Your task to perform on an android device: What's the weather today? Image 0: 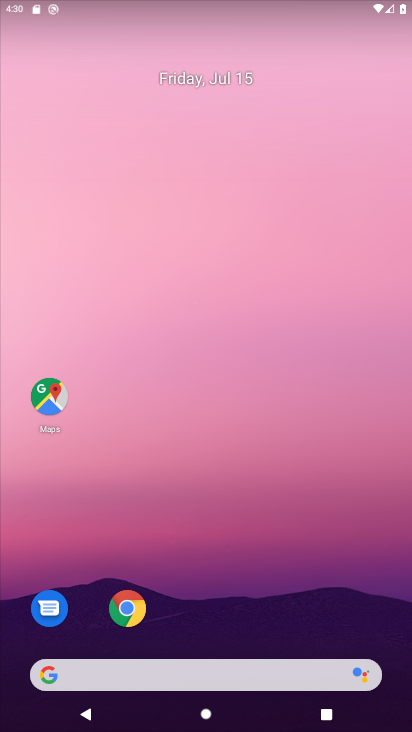
Step 0: click (198, 672)
Your task to perform on an android device: What's the weather today? Image 1: 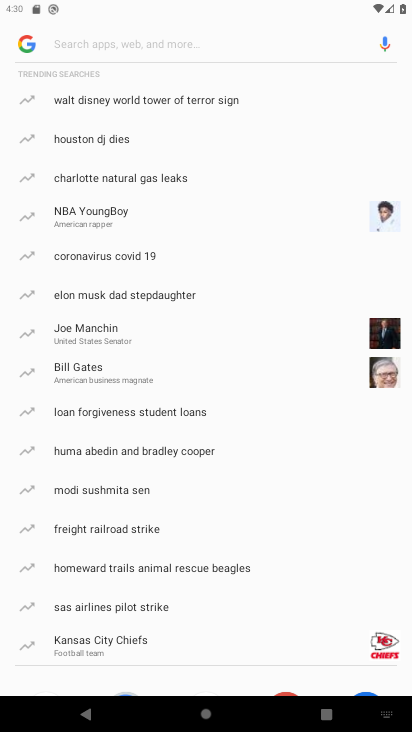
Step 1: type "weather"
Your task to perform on an android device: What's the weather today? Image 2: 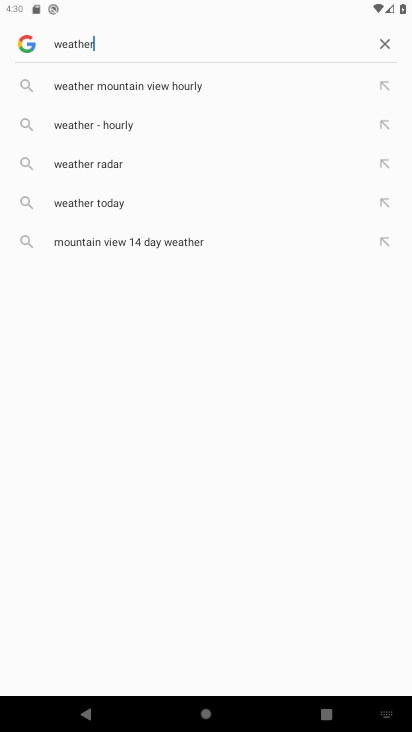
Step 2: click (114, 214)
Your task to perform on an android device: What's the weather today? Image 3: 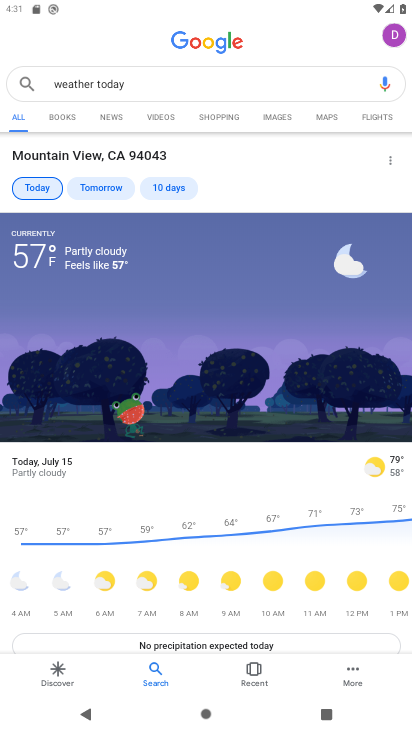
Step 3: task complete